Your task to perform on an android device: turn on the 24-hour format for clock Image 0: 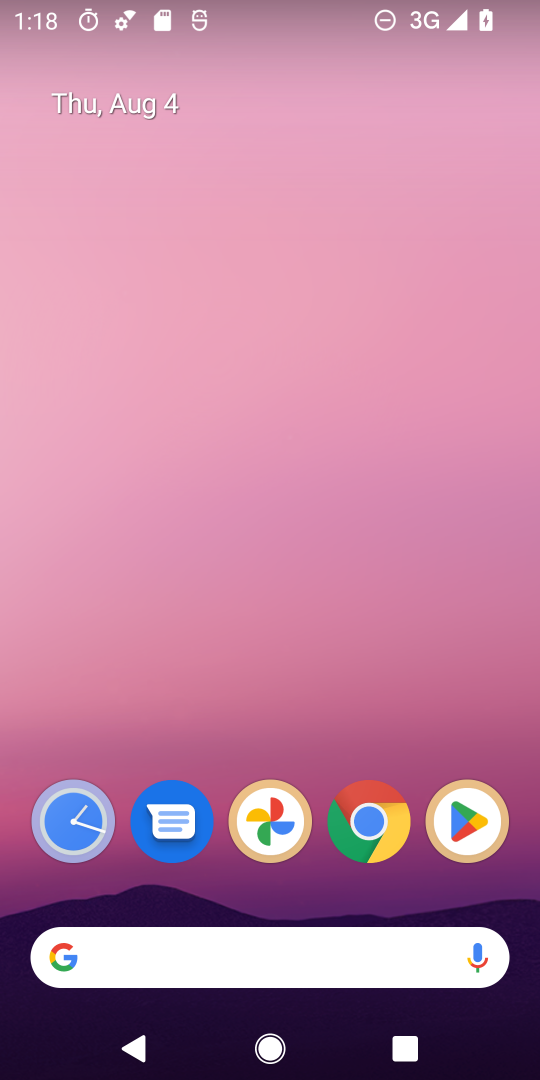
Step 0: drag from (429, 907) to (218, 176)
Your task to perform on an android device: turn on the 24-hour format for clock Image 1: 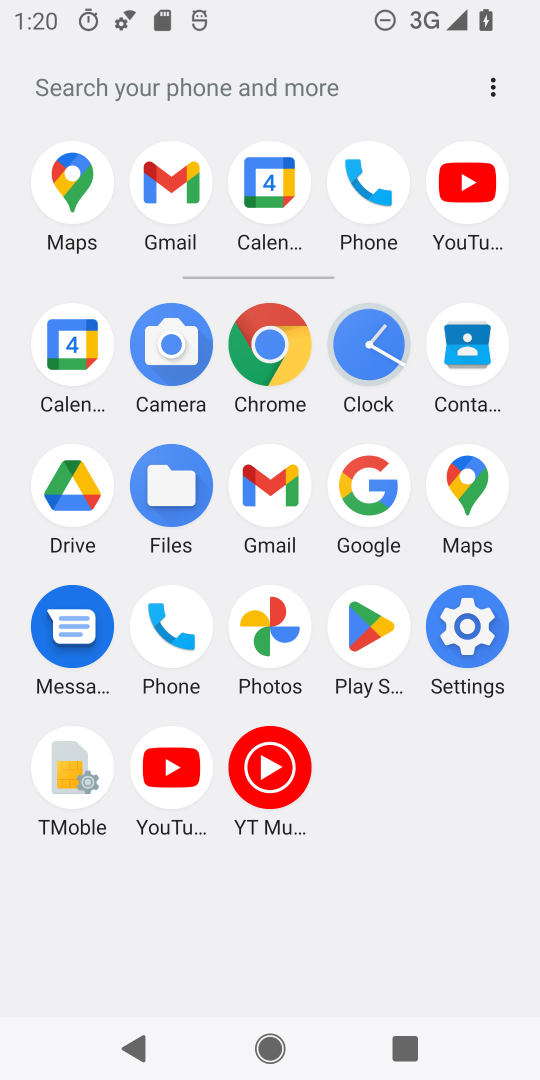
Step 1: click (362, 358)
Your task to perform on an android device: turn on the 24-hour format for clock Image 2: 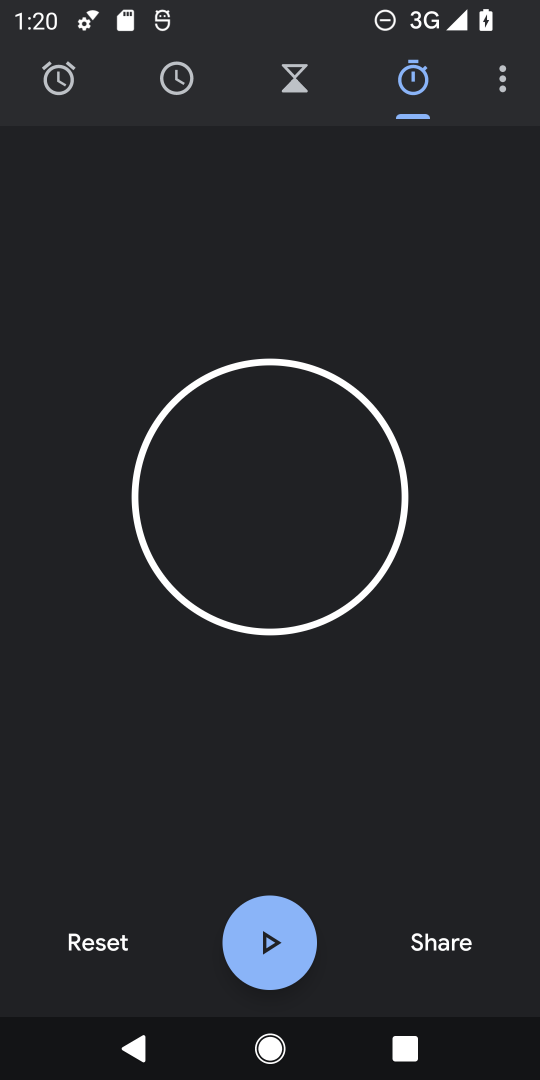
Step 2: click (502, 85)
Your task to perform on an android device: turn on the 24-hour format for clock Image 3: 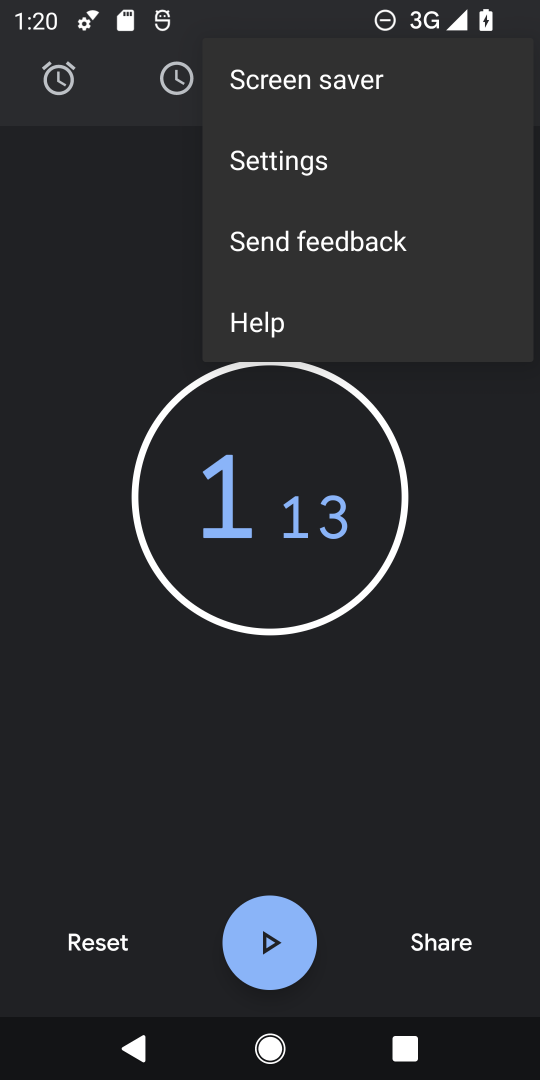
Step 3: click (316, 150)
Your task to perform on an android device: turn on the 24-hour format for clock Image 4: 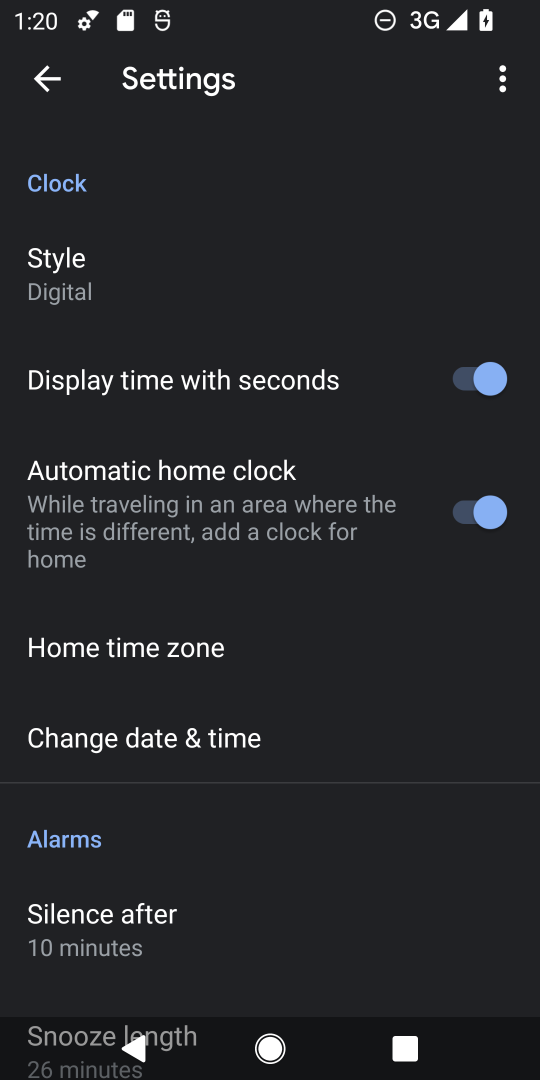
Step 4: click (223, 756)
Your task to perform on an android device: turn on the 24-hour format for clock Image 5: 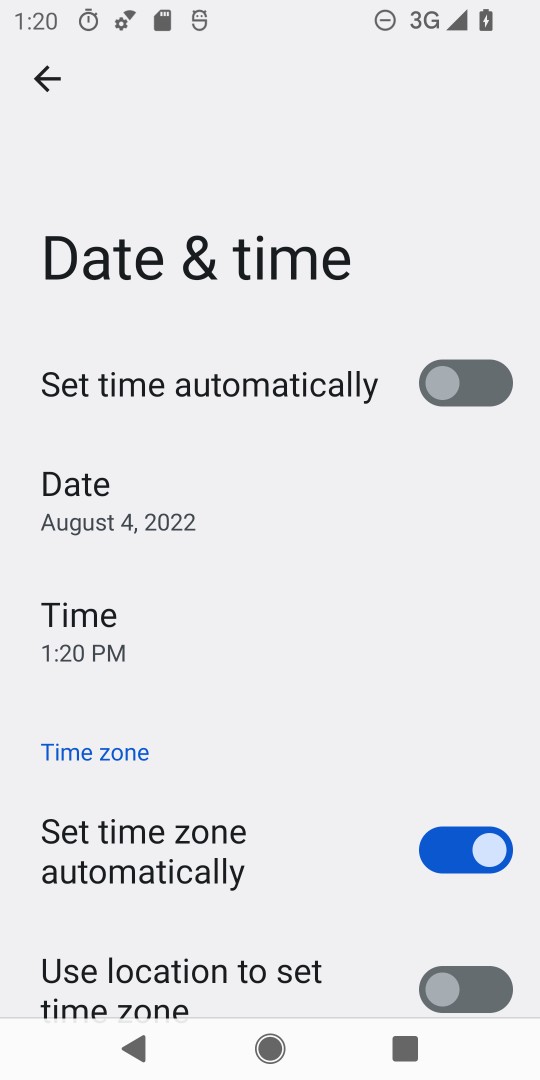
Step 5: task complete